Your task to perform on an android device: Go to ESPN.com Image 0: 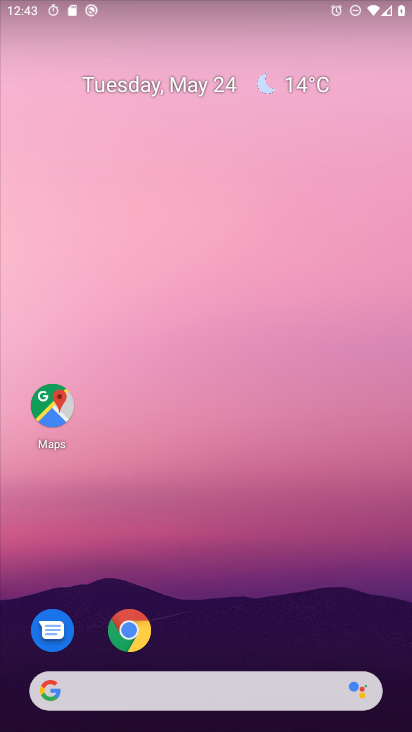
Step 0: drag from (389, 589) to (350, 85)
Your task to perform on an android device: Go to ESPN.com Image 1: 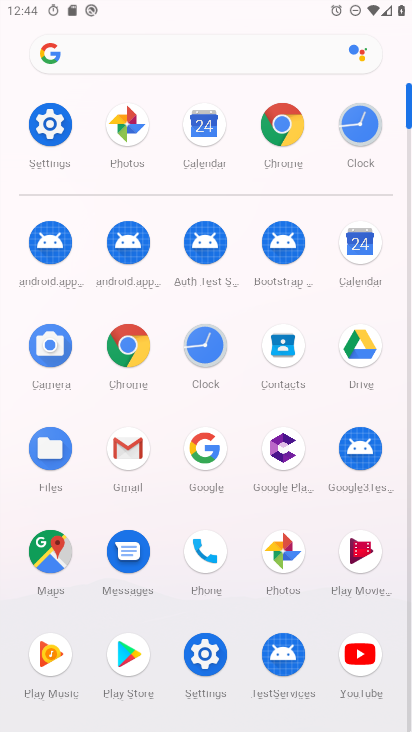
Step 1: click (147, 357)
Your task to perform on an android device: Go to ESPN.com Image 2: 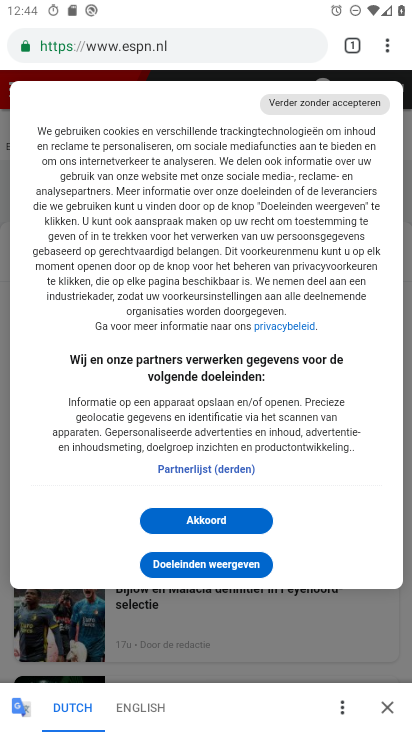
Step 2: click (352, 50)
Your task to perform on an android device: Go to ESPN.com Image 3: 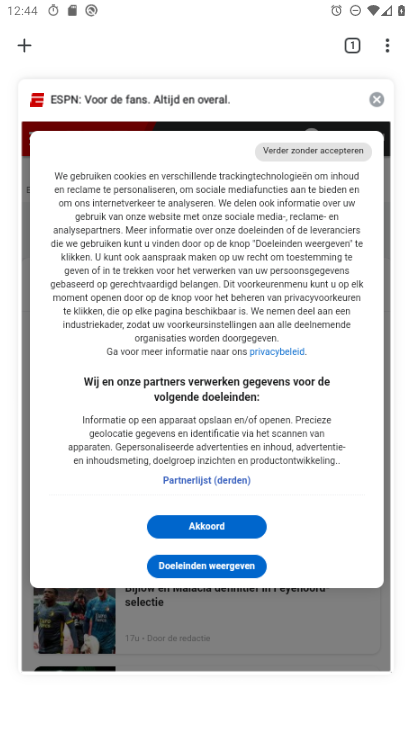
Step 3: click (22, 47)
Your task to perform on an android device: Go to ESPN.com Image 4: 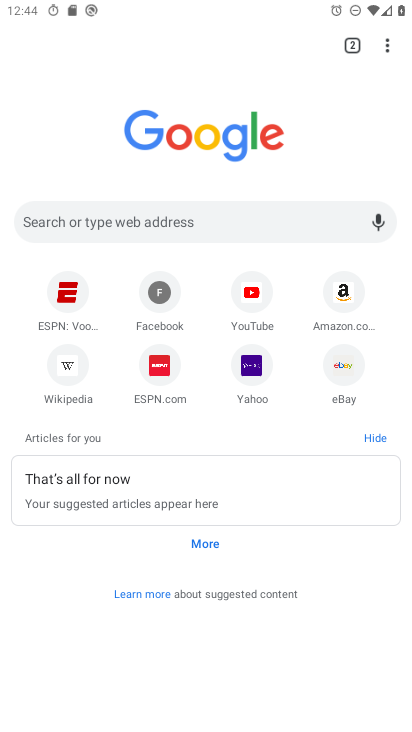
Step 4: click (203, 226)
Your task to perform on an android device: Go to ESPN.com Image 5: 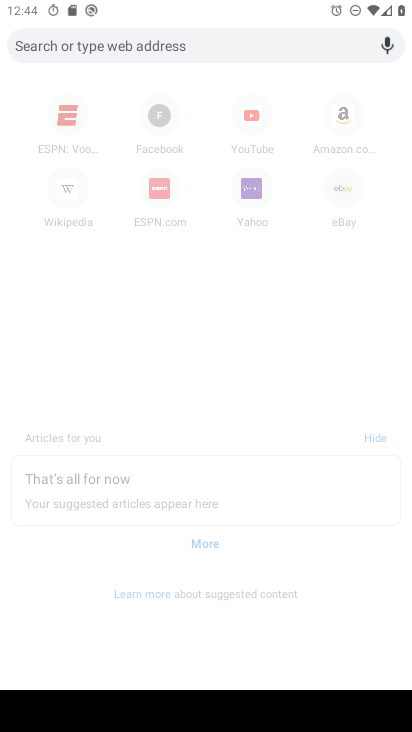
Step 5: type "espn.com"
Your task to perform on an android device: Go to ESPN.com Image 6: 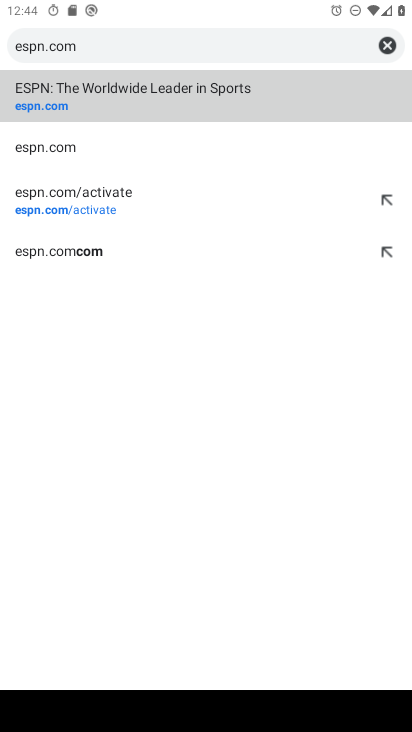
Step 6: click (150, 111)
Your task to perform on an android device: Go to ESPN.com Image 7: 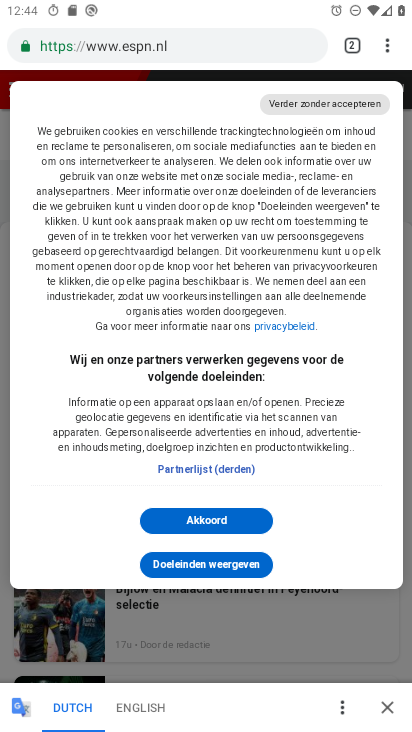
Step 7: task complete